Your task to perform on an android device: set the stopwatch Image 0: 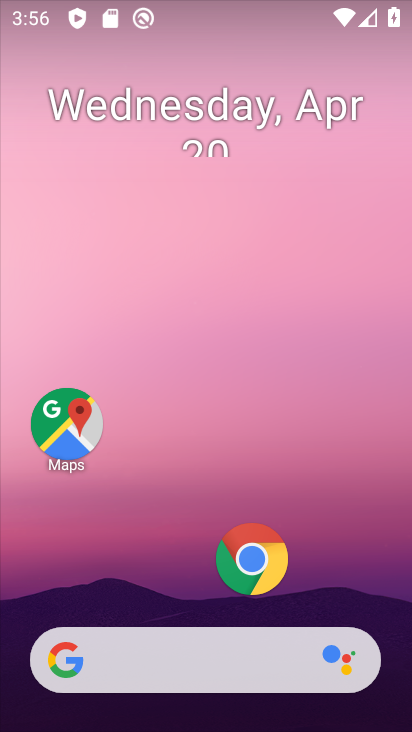
Step 0: drag from (176, 570) to (203, 133)
Your task to perform on an android device: set the stopwatch Image 1: 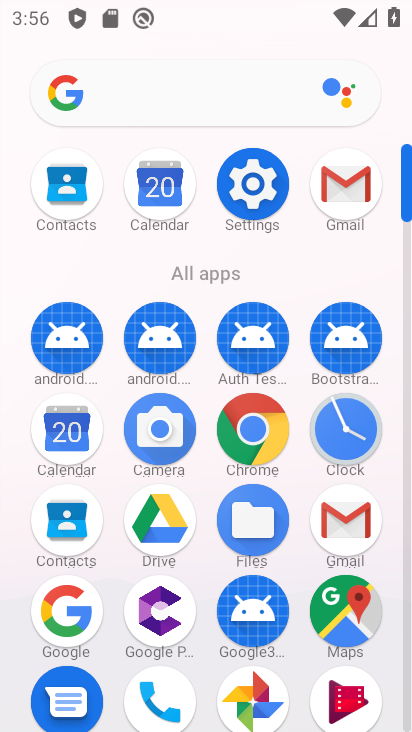
Step 1: click (352, 435)
Your task to perform on an android device: set the stopwatch Image 2: 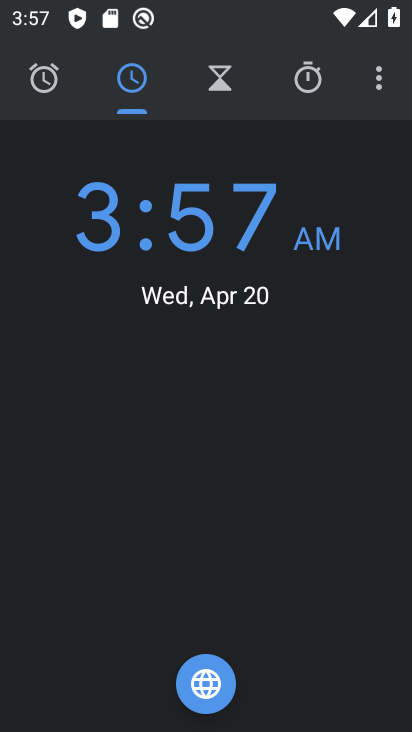
Step 2: click (318, 78)
Your task to perform on an android device: set the stopwatch Image 3: 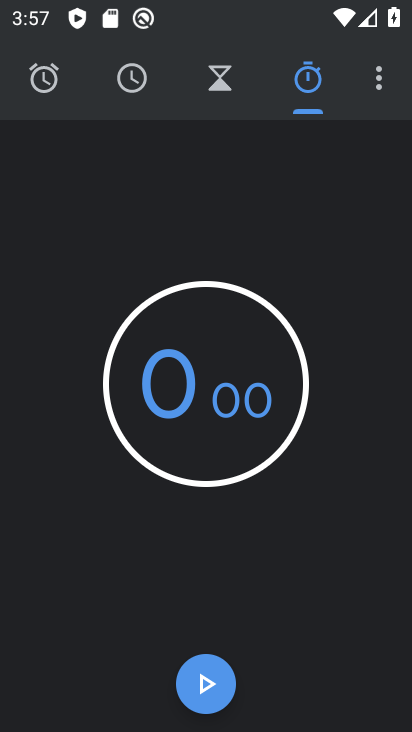
Step 3: click (238, 96)
Your task to perform on an android device: set the stopwatch Image 4: 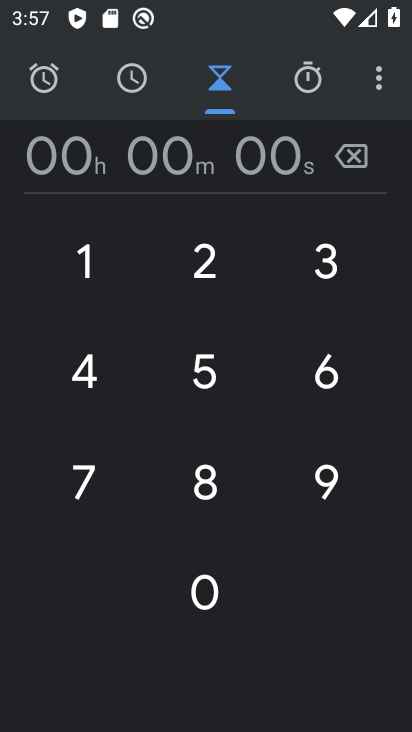
Step 4: click (214, 248)
Your task to perform on an android device: set the stopwatch Image 5: 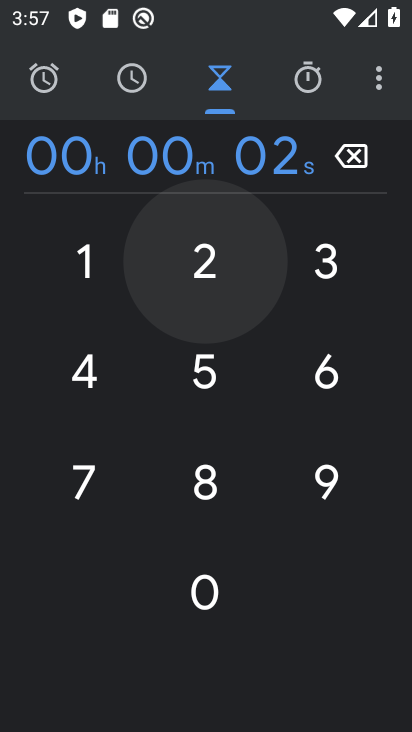
Step 5: click (311, 264)
Your task to perform on an android device: set the stopwatch Image 6: 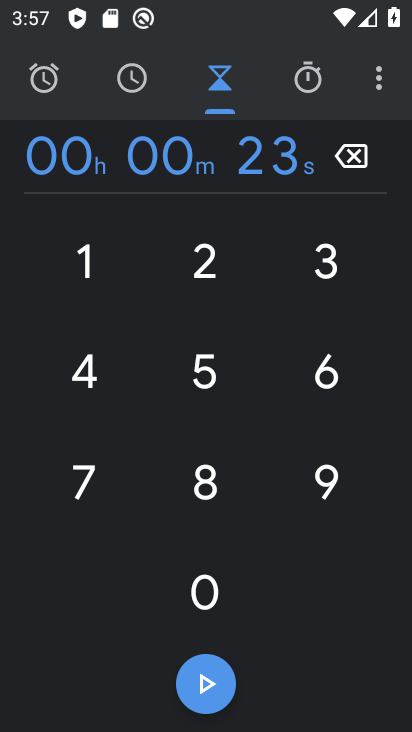
Step 6: task complete